Your task to perform on an android device: Check the weather Image 0: 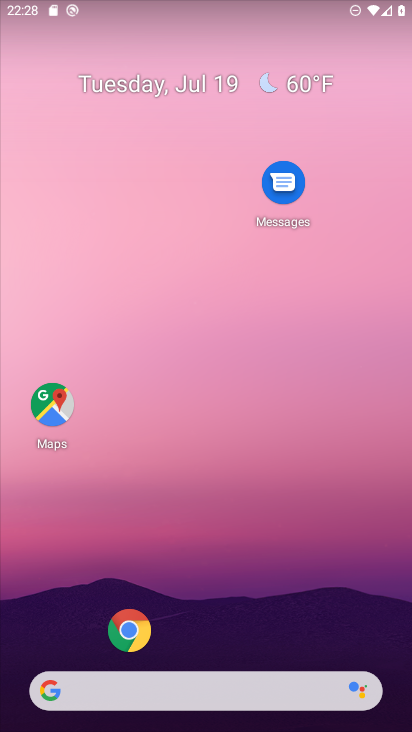
Step 0: click (127, 700)
Your task to perform on an android device: Check the weather Image 1: 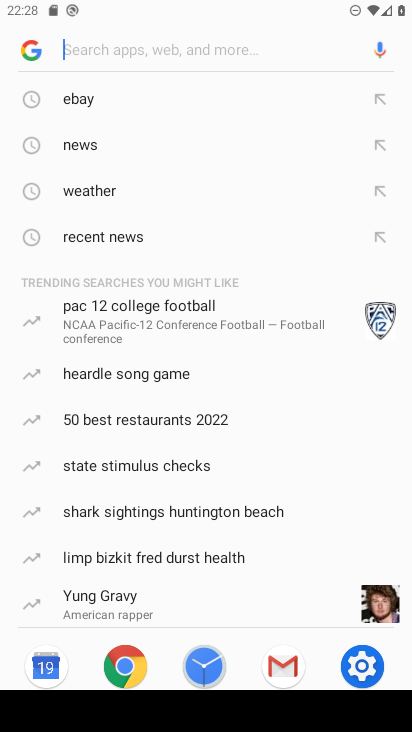
Step 1: click (95, 176)
Your task to perform on an android device: Check the weather Image 2: 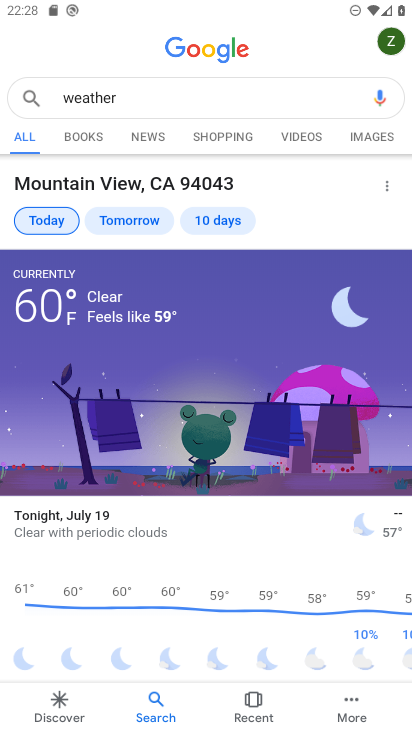
Step 2: task complete